Your task to perform on an android device: Go to Wikipedia Image 0: 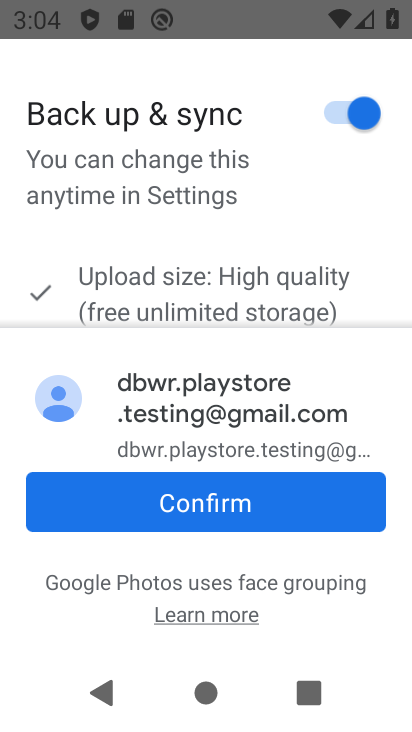
Step 0: press home button
Your task to perform on an android device: Go to Wikipedia Image 1: 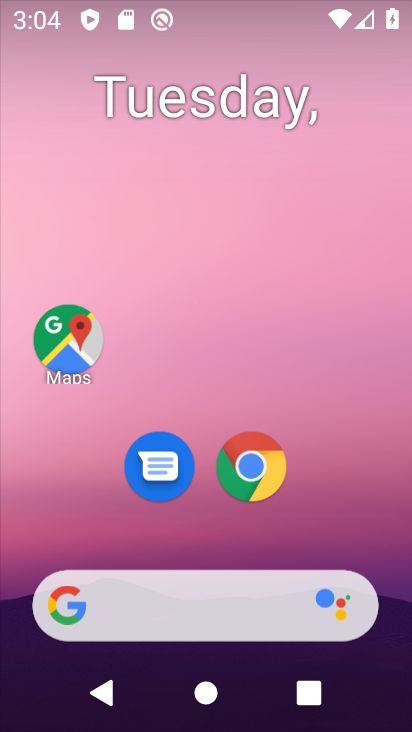
Step 1: press home button
Your task to perform on an android device: Go to Wikipedia Image 2: 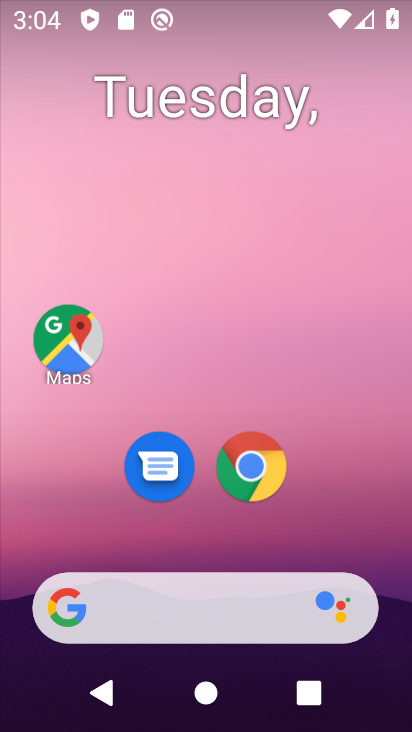
Step 2: type " Wikipedia"
Your task to perform on an android device: Go to Wikipedia Image 3: 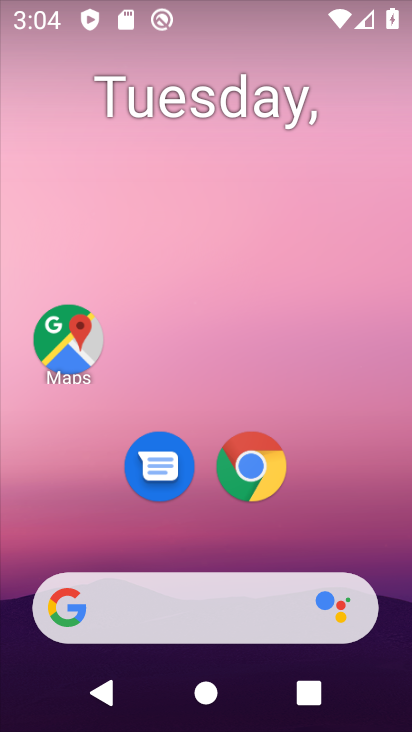
Step 3: click (214, 597)
Your task to perform on an android device: Go to Wikipedia Image 4: 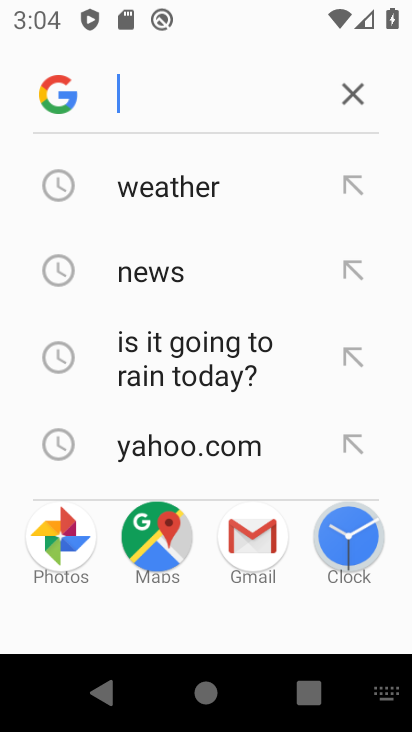
Step 4: type "Wikipedia"
Your task to perform on an android device: Go to Wikipedia Image 5: 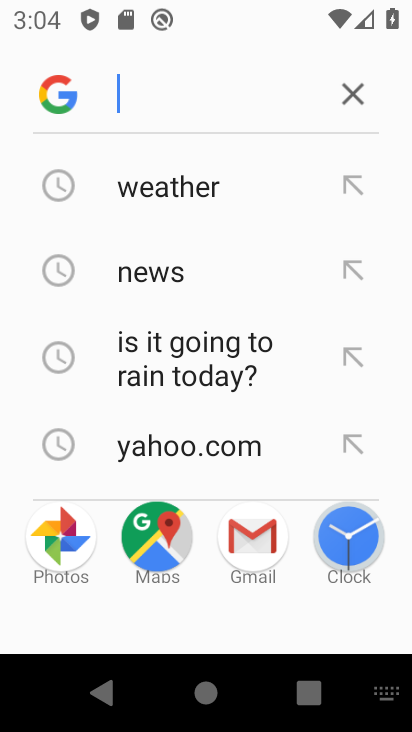
Step 5: click (206, 104)
Your task to perform on an android device: Go to Wikipedia Image 6: 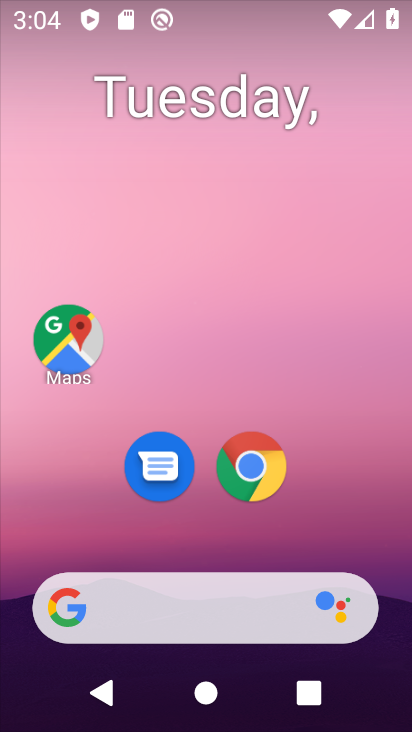
Step 6: click (221, 606)
Your task to perform on an android device: Go to Wikipedia Image 7: 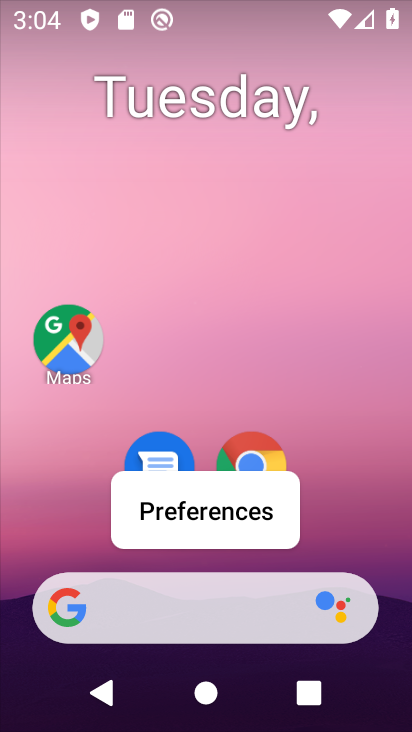
Step 7: click (179, 611)
Your task to perform on an android device: Go to Wikipedia Image 8: 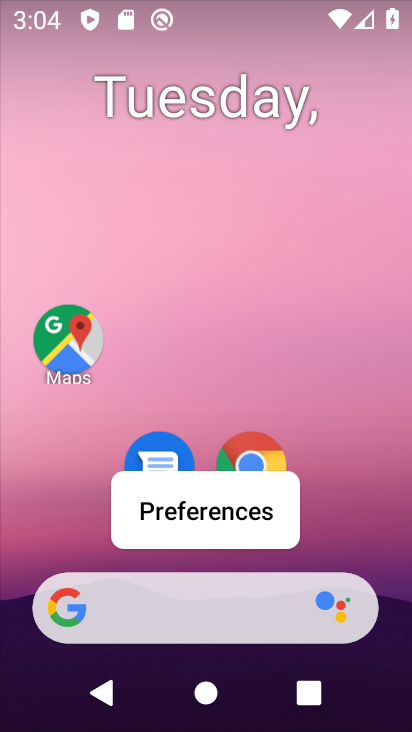
Step 8: click (179, 611)
Your task to perform on an android device: Go to Wikipedia Image 9: 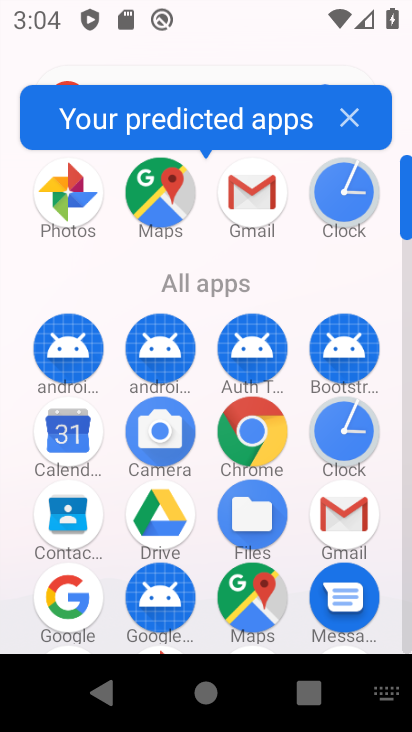
Step 9: click (78, 607)
Your task to perform on an android device: Go to Wikipedia Image 10: 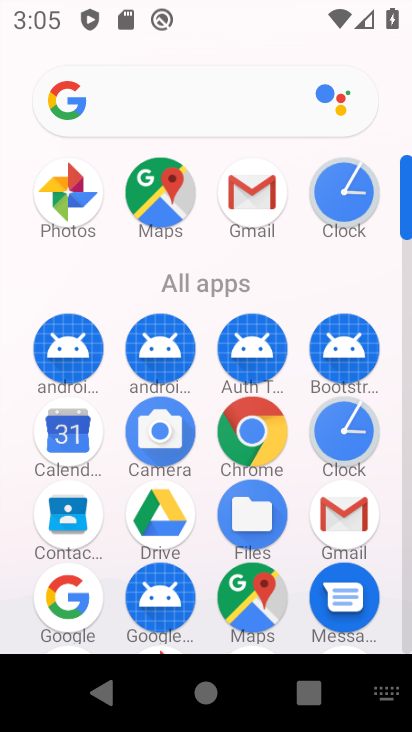
Step 10: click (64, 589)
Your task to perform on an android device: Go to Wikipedia Image 11: 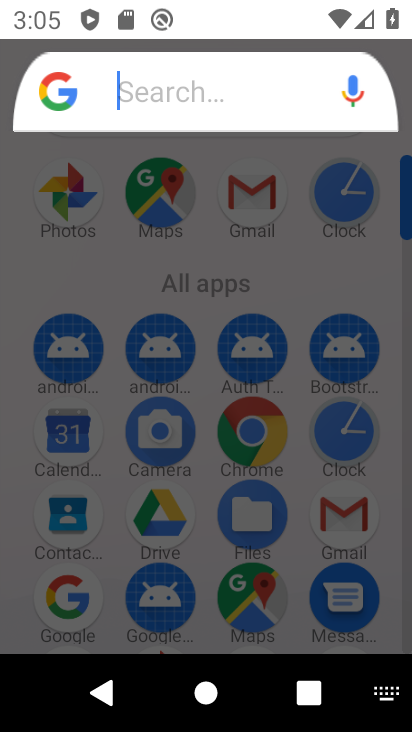
Step 11: click (72, 598)
Your task to perform on an android device: Go to Wikipedia Image 12: 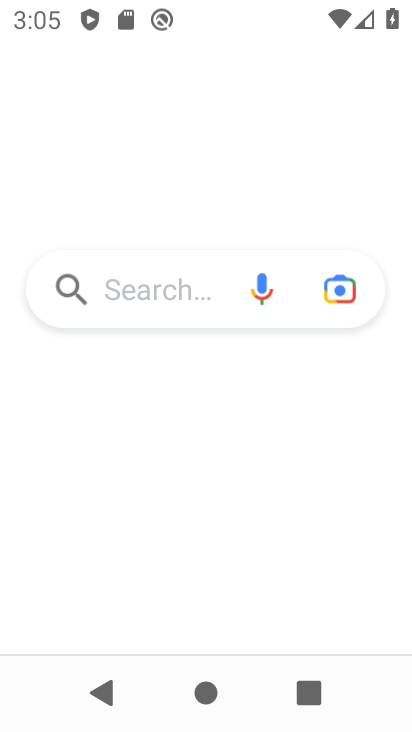
Step 12: click (169, 292)
Your task to perform on an android device: Go to Wikipedia Image 13: 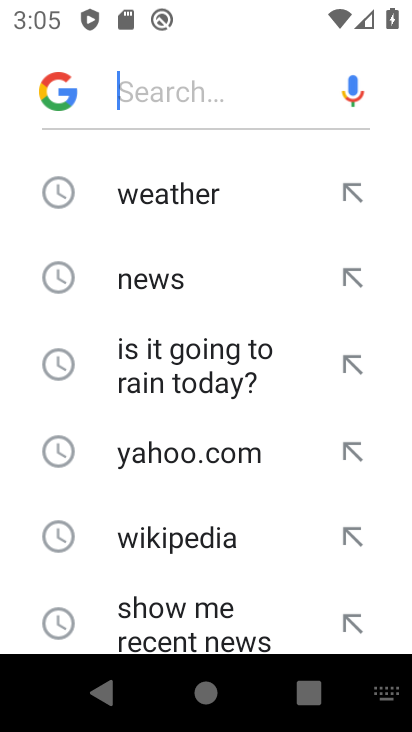
Step 13: type "Wikipedia"
Your task to perform on an android device: Go to Wikipedia Image 14: 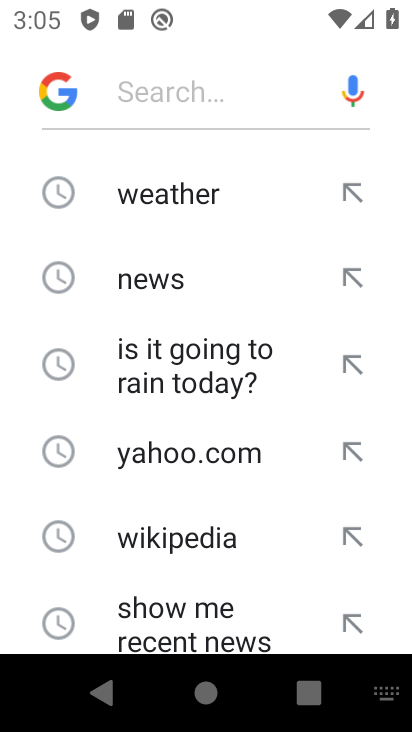
Step 14: drag from (250, 94) to (180, 102)
Your task to perform on an android device: Go to Wikipedia Image 15: 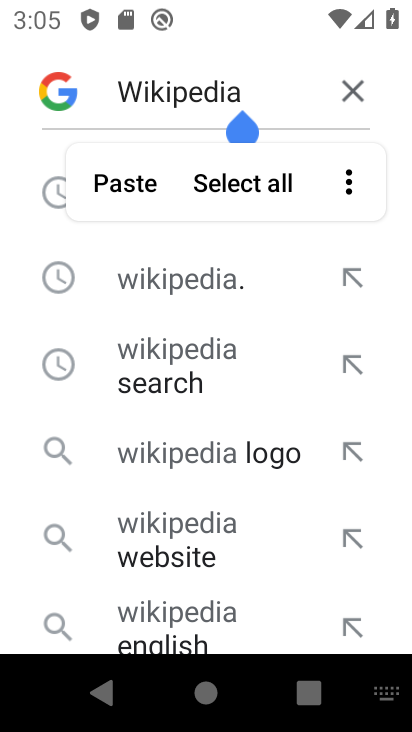
Step 15: click (194, 276)
Your task to perform on an android device: Go to Wikipedia Image 16: 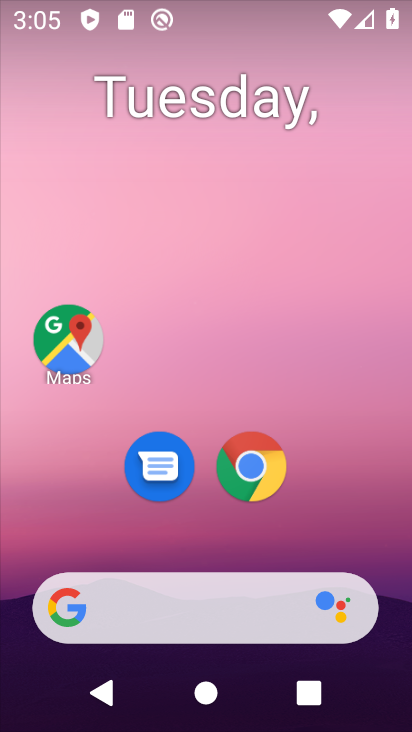
Step 16: click (221, 593)
Your task to perform on an android device: Go to Wikipedia Image 17: 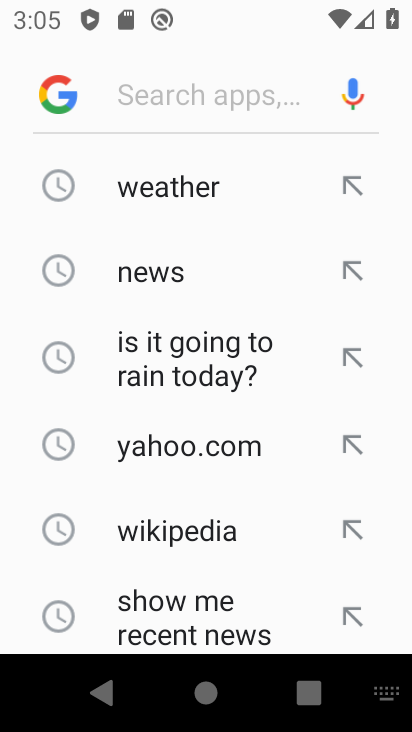
Step 17: click (207, 92)
Your task to perform on an android device: Go to Wikipedia Image 18: 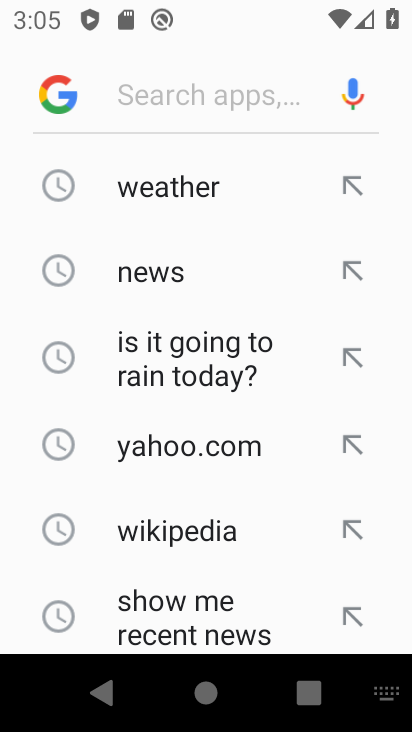
Step 18: type "Wikipedia"
Your task to perform on an android device: Go to Wikipedia Image 19: 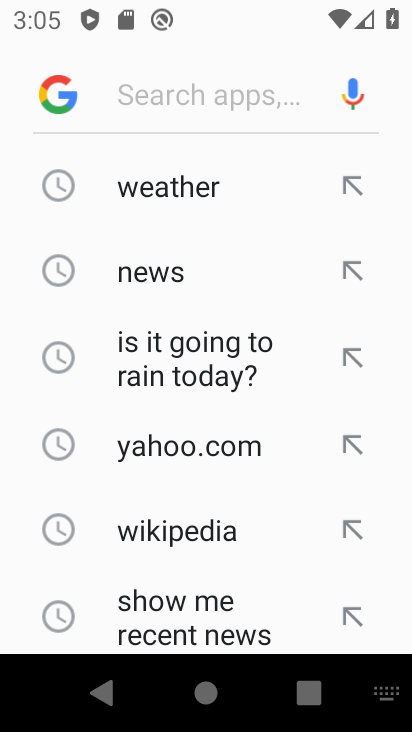
Step 19: click (160, 99)
Your task to perform on an android device: Go to Wikipedia Image 20: 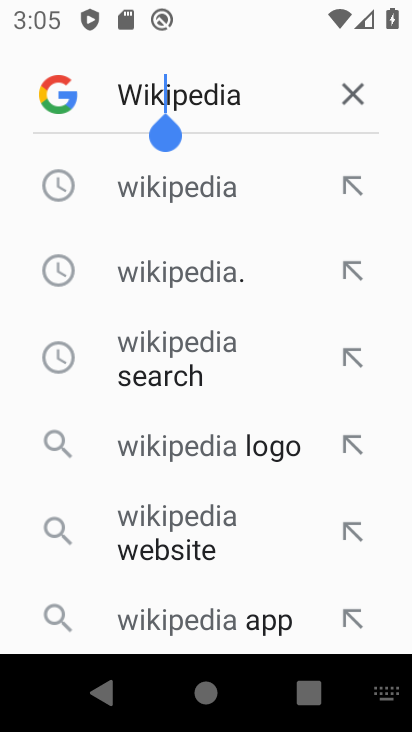
Step 20: click (168, 99)
Your task to perform on an android device: Go to Wikipedia Image 21: 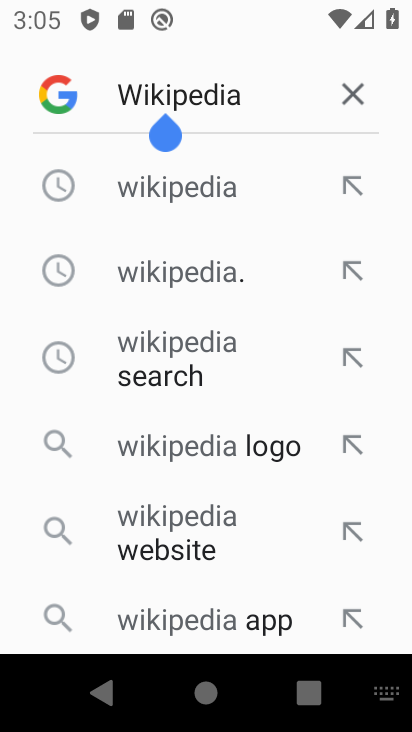
Step 21: click (60, 529)
Your task to perform on an android device: Go to Wikipedia Image 22: 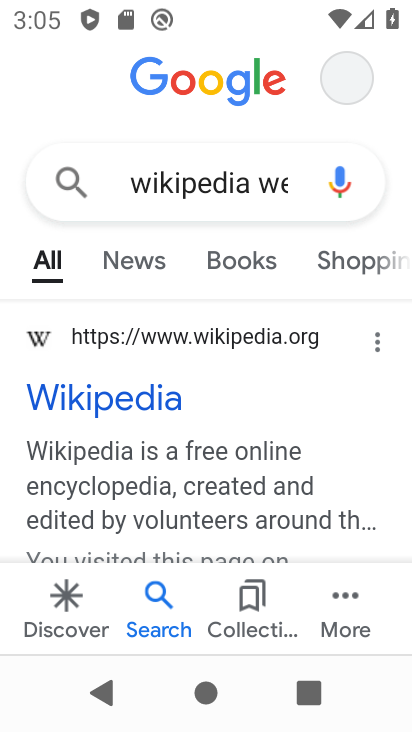
Step 22: click (98, 396)
Your task to perform on an android device: Go to Wikipedia Image 23: 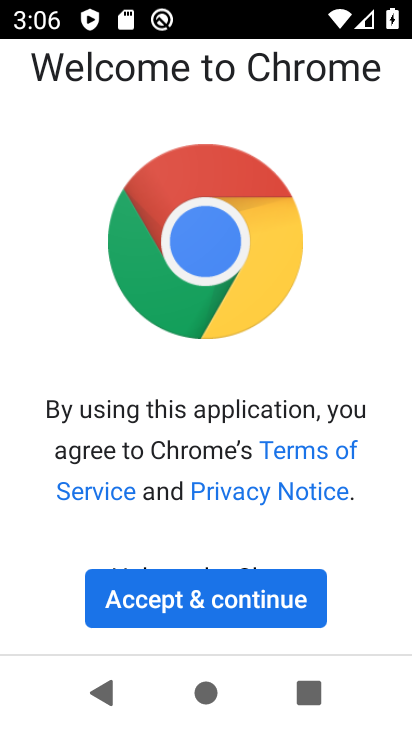
Step 23: click (265, 585)
Your task to perform on an android device: Go to Wikipedia Image 24: 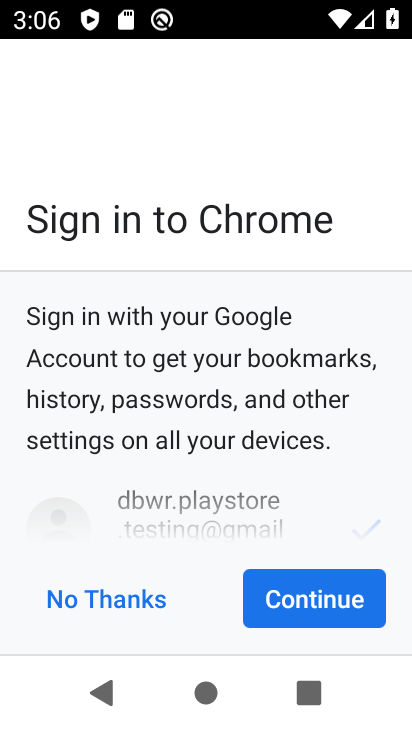
Step 24: click (279, 587)
Your task to perform on an android device: Go to Wikipedia Image 25: 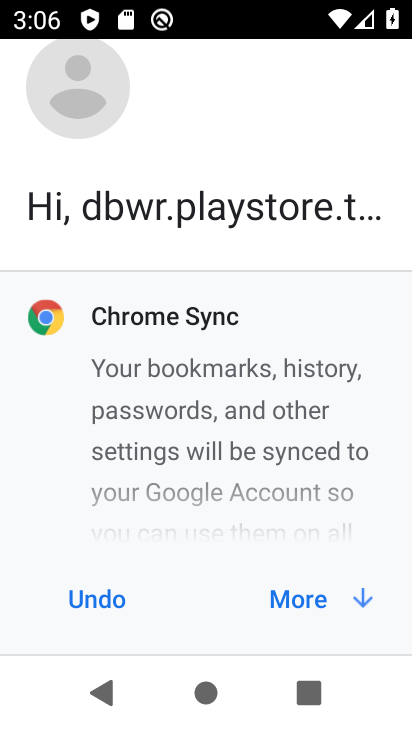
Step 25: click (289, 598)
Your task to perform on an android device: Go to Wikipedia Image 26: 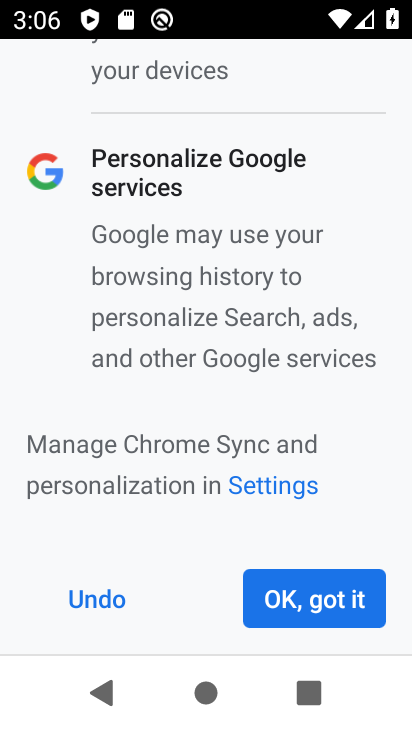
Step 26: click (294, 598)
Your task to perform on an android device: Go to Wikipedia Image 27: 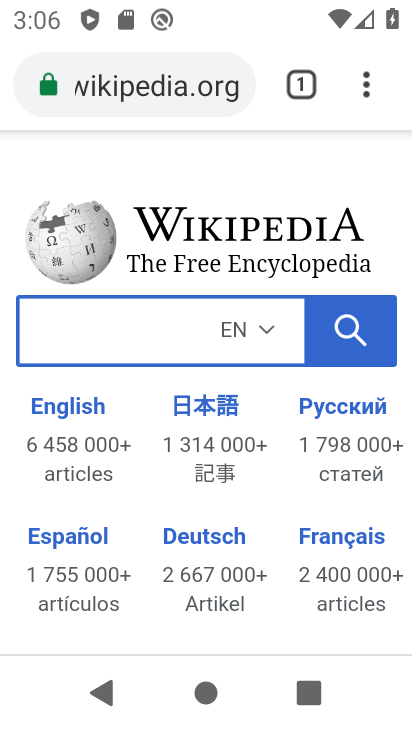
Step 27: task complete